Your task to perform on an android device: Go to wifi settings Image 0: 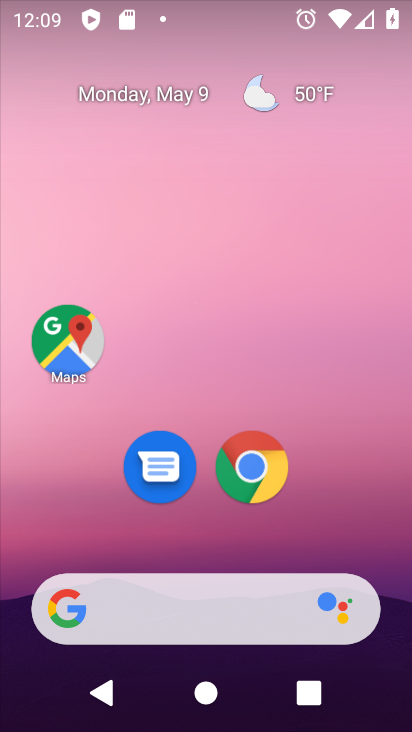
Step 0: drag from (203, 537) to (260, 81)
Your task to perform on an android device: Go to wifi settings Image 1: 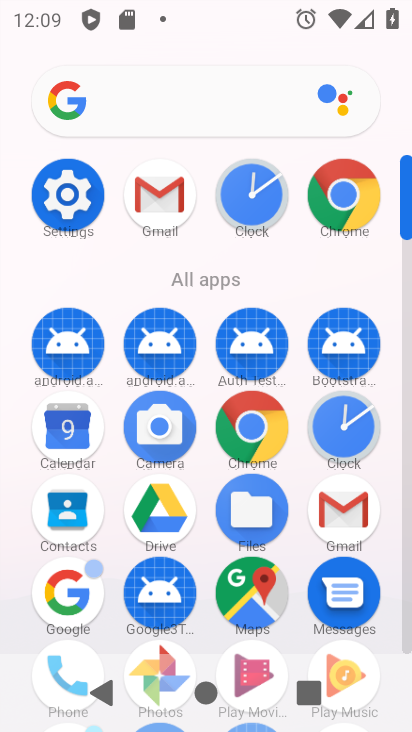
Step 1: click (55, 192)
Your task to perform on an android device: Go to wifi settings Image 2: 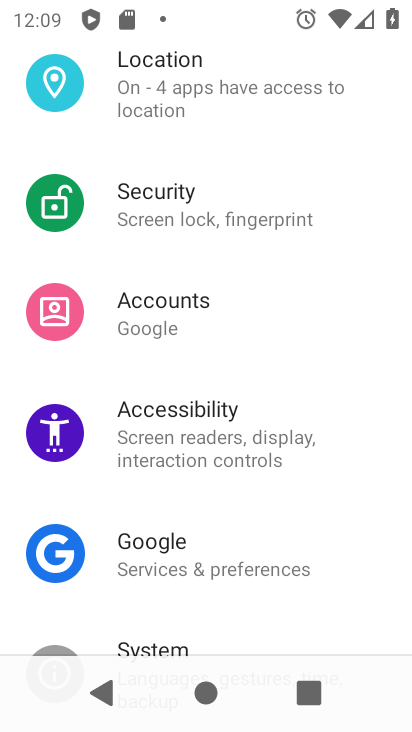
Step 2: drag from (196, 129) to (202, 712)
Your task to perform on an android device: Go to wifi settings Image 3: 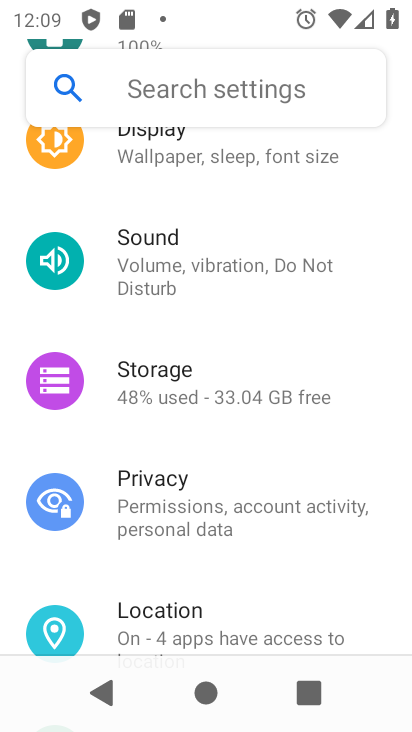
Step 3: drag from (178, 183) to (228, 731)
Your task to perform on an android device: Go to wifi settings Image 4: 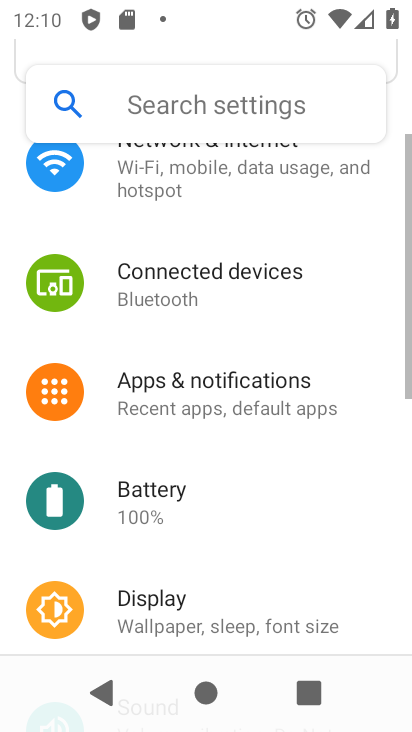
Step 4: click (185, 174)
Your task to perform on an android device: Go to wifi settings Image 5: 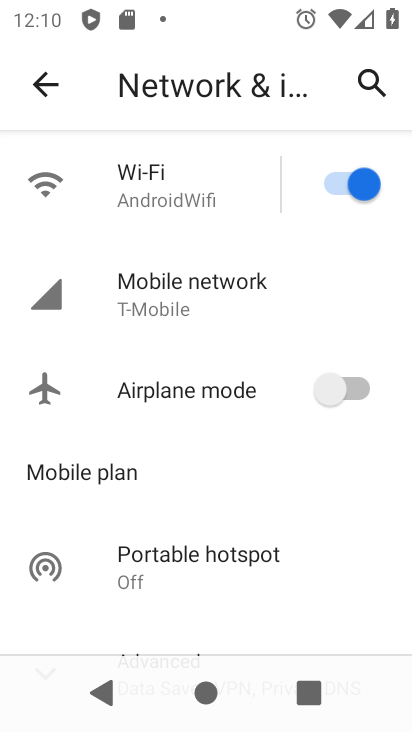
Step 5: click (173, 196)
Your task to perform on an android device: Go to wifi settings Image 6: 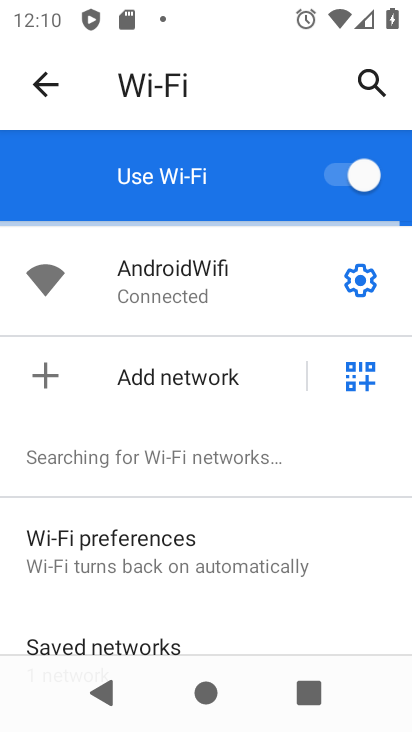
Step 6: task complete